Your task to perform on an android device: What is the news today? Image 0: 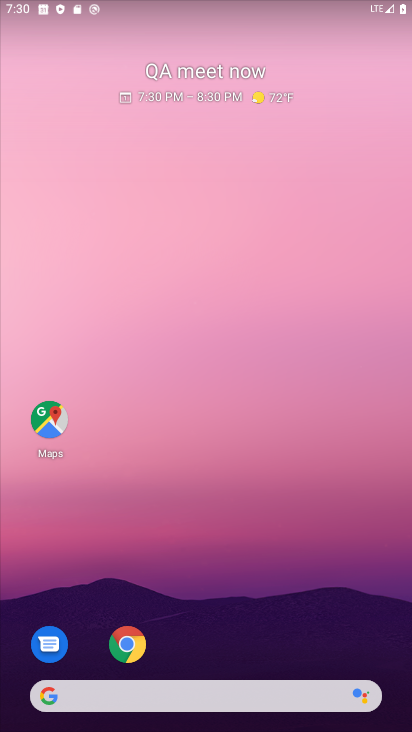
Step 0: drag from (206, 716) to (243, 297)
Your task to perform on an android device: What is the news today? Image 1: 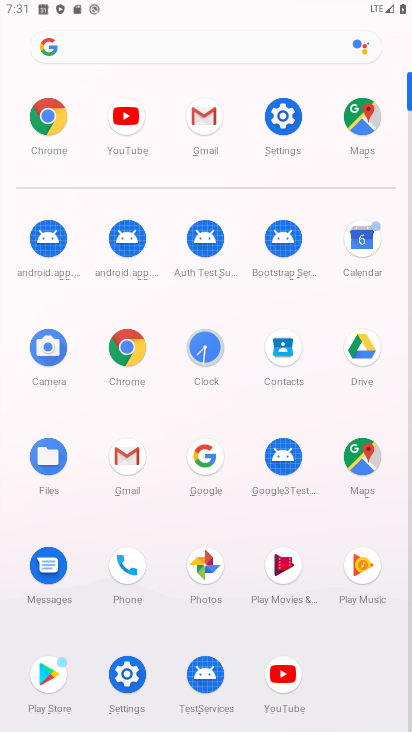
Step 1: click (110, 58)
Your task to perform on an android device: What is the news today? Image 2: 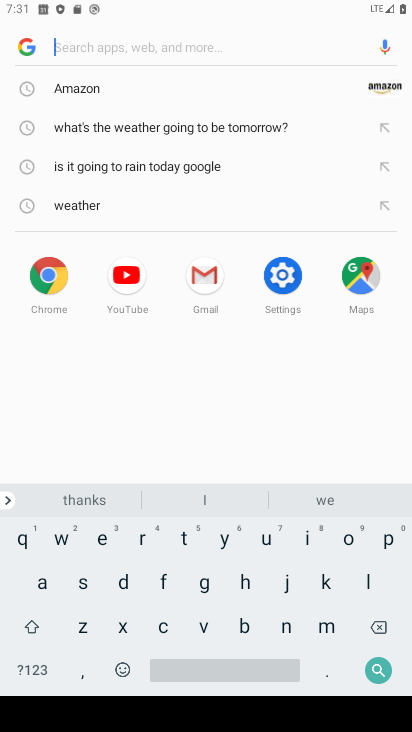
Step 2: click (279, 631)
Your task to perform on an android device: What is the news today? Image 3: 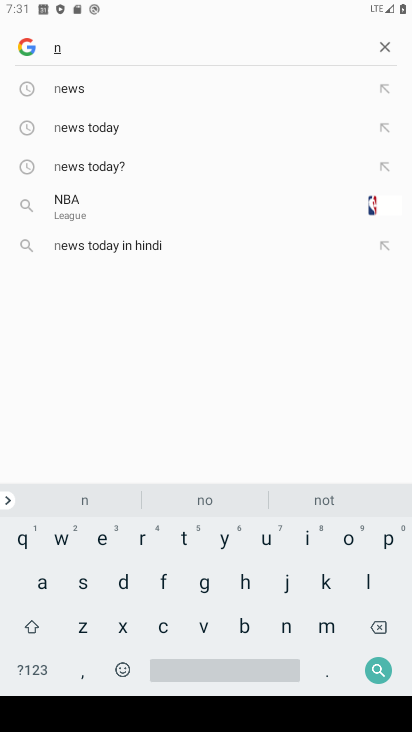
Step 3: click (93, 128)
Your task to perform on an android device: What is the news today? Image 4: 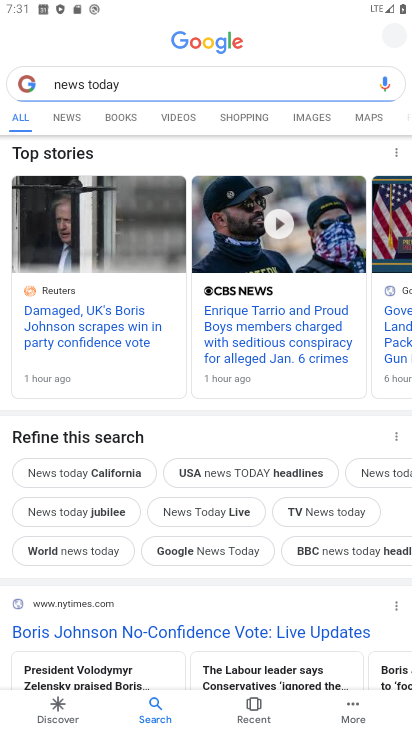
Step 4: task complete